Your task to perform on an android device: Show me recent news Image 0: 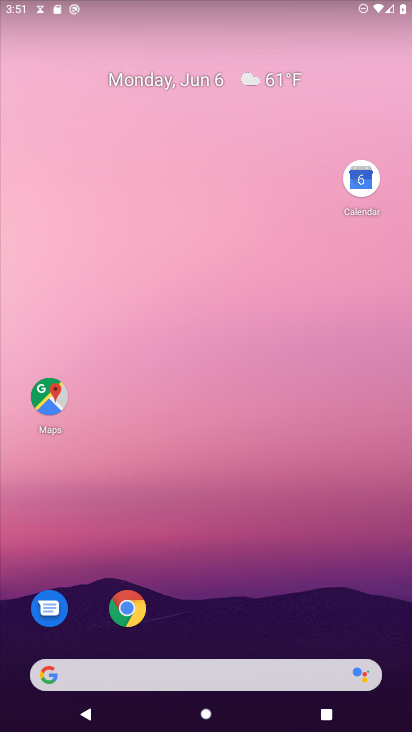
Step 0: click (138, 667)
Your task to perform on an android device: Show me recent news Image 1: 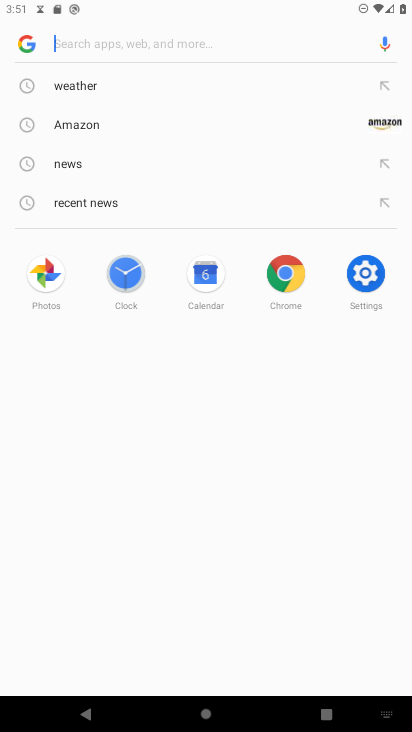
Step 1: type "recent news"
Your task to perform on an android device: Show me recent news Image 2: 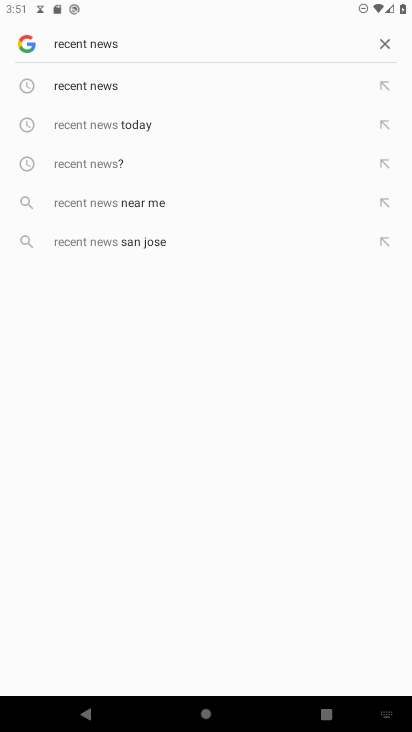
Step 2: click (120, 93)
Your task to perform on an android device: Show me recent news Image 3: 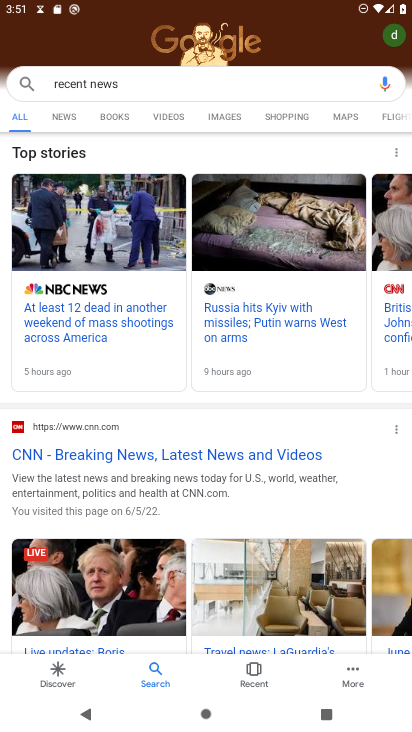
Step 3: task complete